Your task to perform on an android device: Search for Mexican restaurants on Maps Image 0: 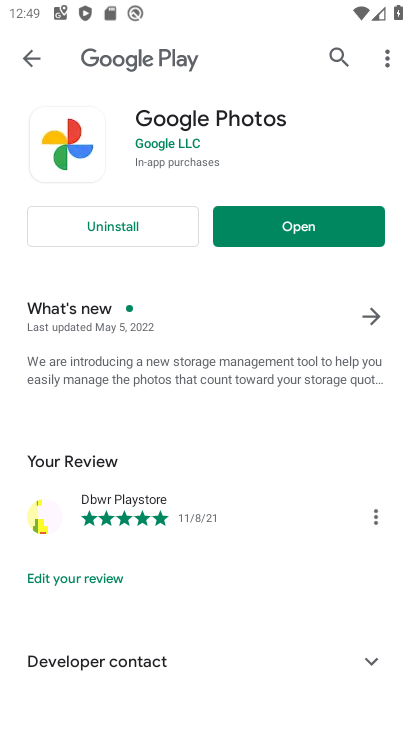
Step 0: press home button
Your task to perform on an android device: Search for Mexican restaurants on Maps Image 1: 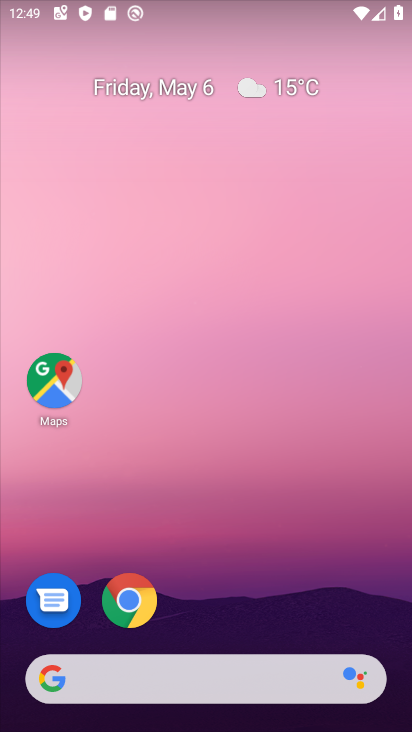
Step 1: drag from (291, 567) to (258, 132)
Your task to perform on an android device: Search for Mexican restaurants on Maps Image 2: 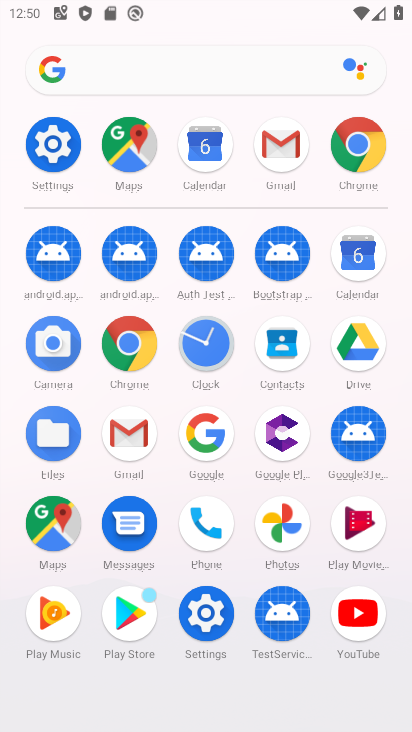
Step 2: click (61, 520)
Your task to perform on an android device: Search for Mexican restaurants on Maps Image 3: 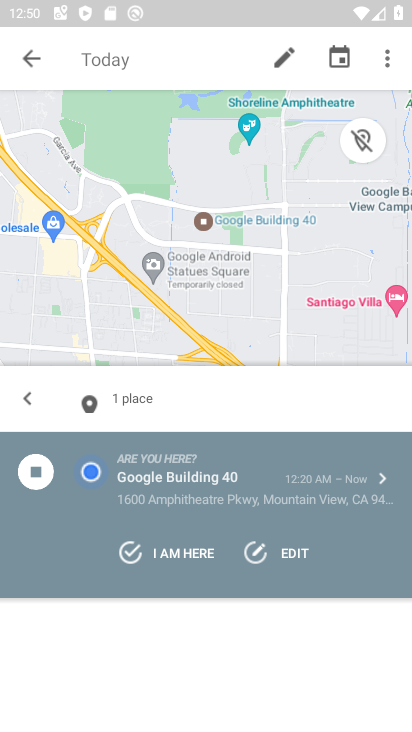
Step 3: click (30, 57)
Your task to perform on an android device: Search for Mexican restaurants on Maps Image 4: 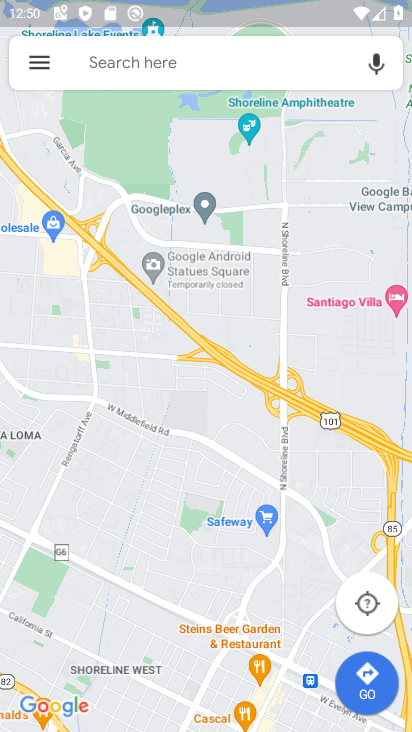
Step 4: click (158, 56)
Your task to perform on an android device: Search for Mexican restaurants on Maps Image 5: 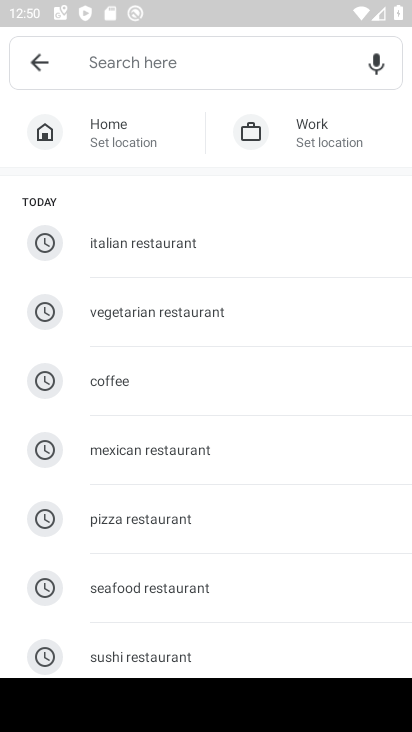
Step 5: click (206, 457)
Your task to perform on an android device: Search for Mexican restaurants on Maps Image 6: 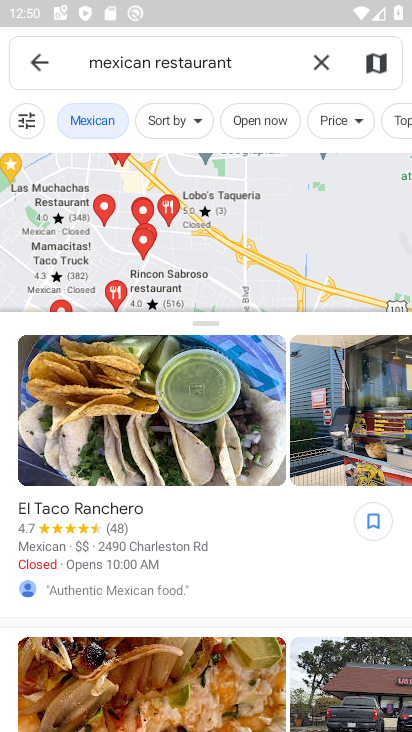
Step 6: task complete